Your task to perform on an android device: Open settings Image 0: 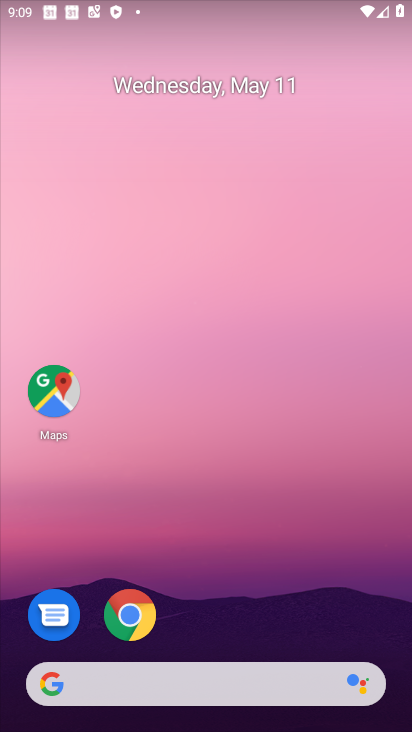
Step 0: press home button
Your task to perform on an android device: Open settings Image 1: 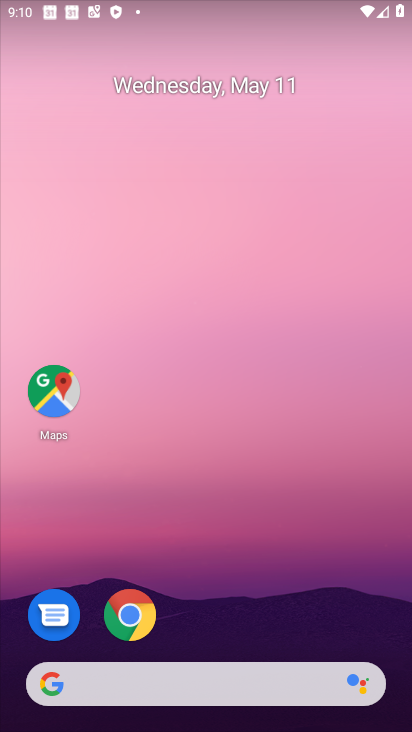
Step 1: drag from (4, 714) to (265, 151)
Your task to perform on an android device: Open settings Image 2: 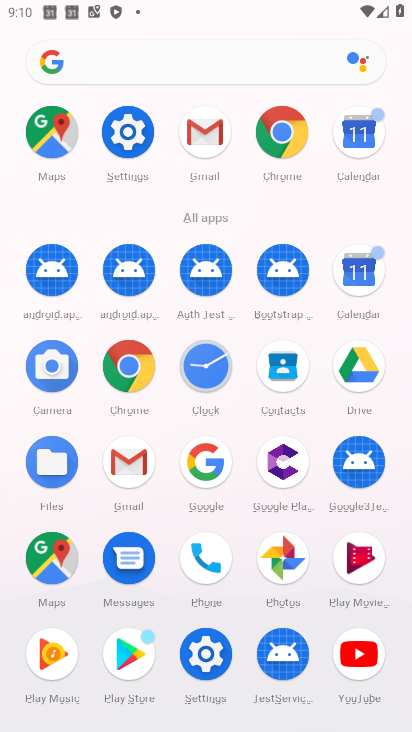
Step 2: click (132, 130)
Your task to perform on an android device: Open settings Image 3: 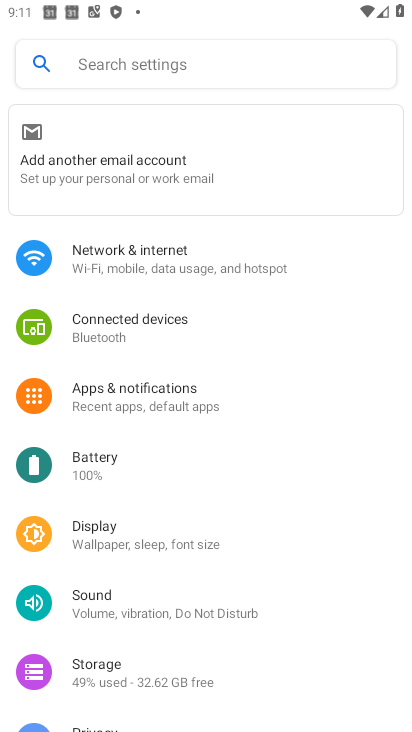
Step 3: task complete